Your task to perform on an android device: turn off notifications settings in the gmail app Image 0: 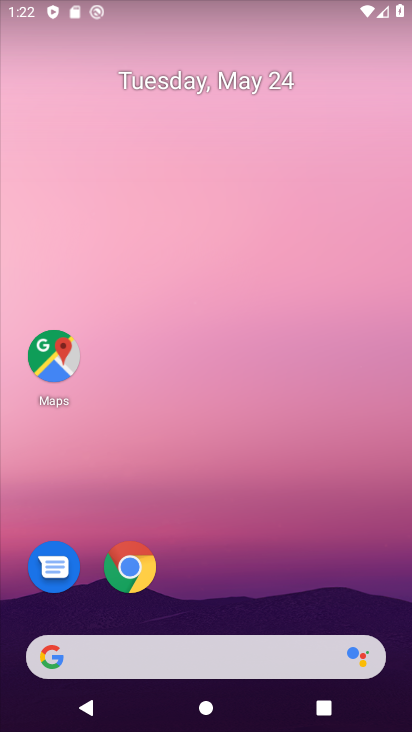
Step 0: drag from (210, 454) to (241, 186)
Your task to perform on an android device: turn off notifications settings in the gmail app Image 1: 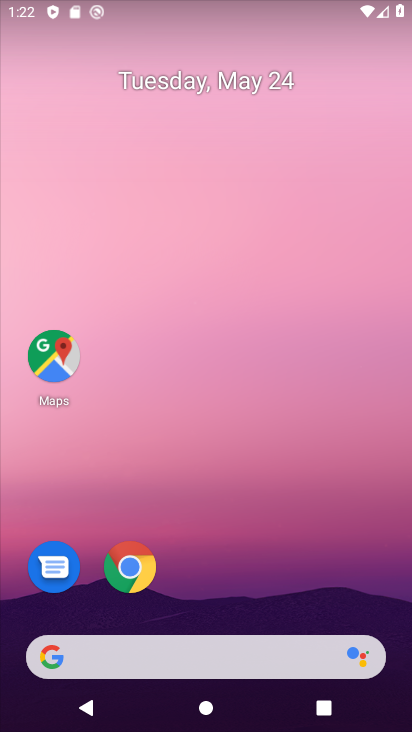
Step 1: drag from (240, 607) to (356, 8)
Your task to perform on an android device: turn off notifications settings in the gmail app Image 2: 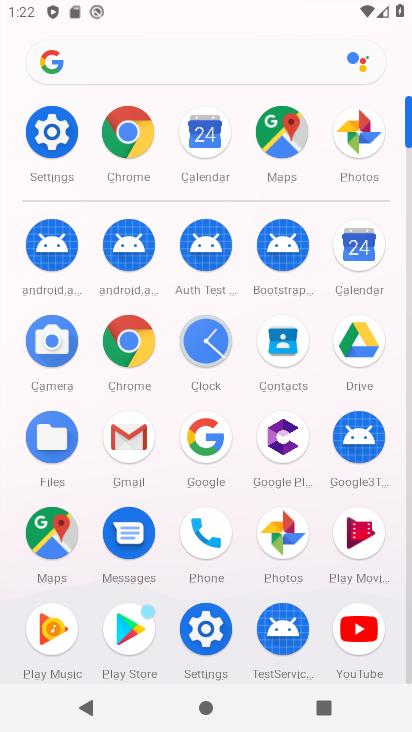
Step 2: click (140, 439)
Your task to perform on an android device: turn off notifications settings in the gmail app Image 3: 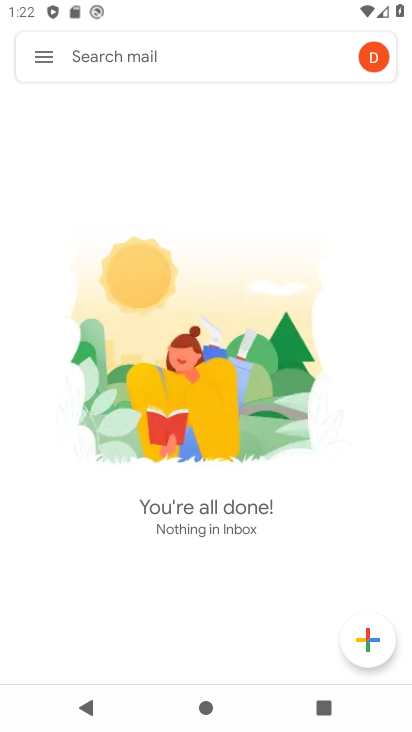
Step 3: click (45, 52)
Your task to perform on an android device: turn off notifications settings in the gmail app Image 4: 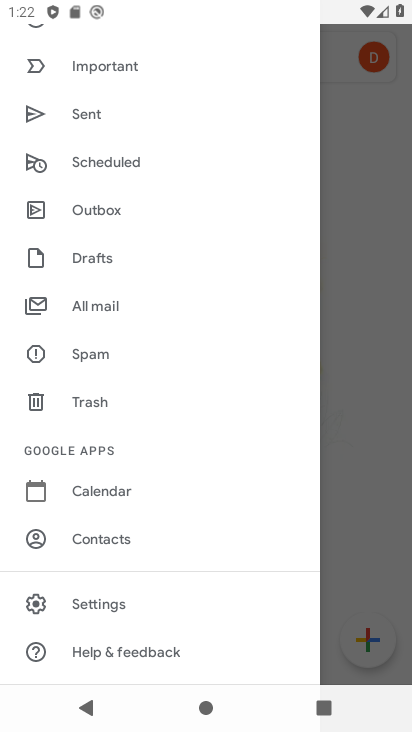
Step 4: click (100, 609)
Your task to perform on an android device: turn off notifications settings in the gmail app Image 5: 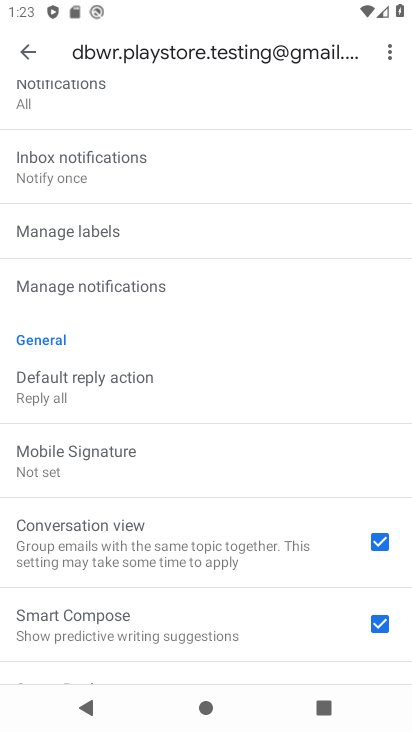
Step 5: click (30, 53)
Your task to perform on an android device: turn off notifications settings in the gmail app Image 6: 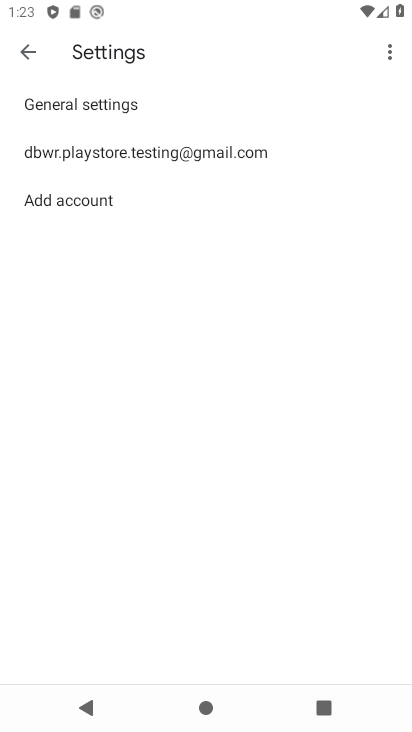
Step 6: click (112, 100)
Your task to perform on an android device: turn off notifications settings in the gmail app Image 7: 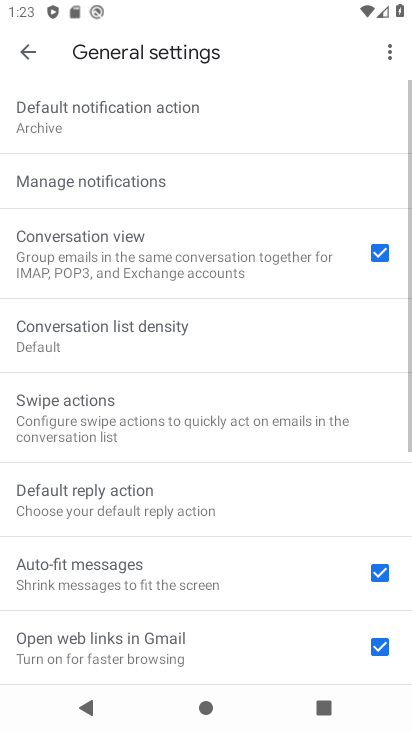
Step 7: click (115, 178)
Your task to perform on an android device: turn off notifications settings in the gmail app Image 8: 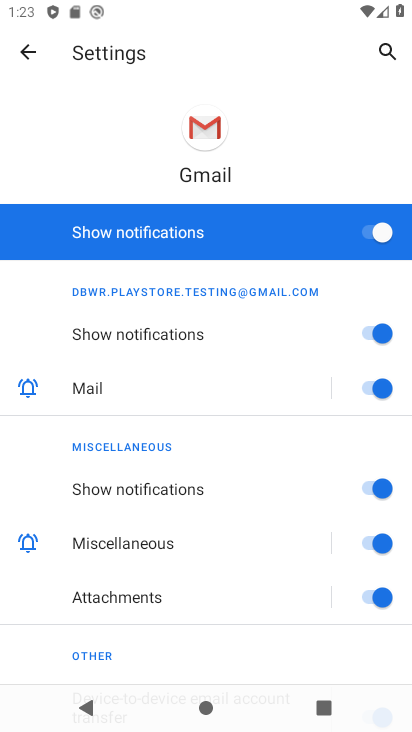
Step 8: click (353, 233)
Your task to perform on an android device: turn off notifications settings in the gmail app Image 9: 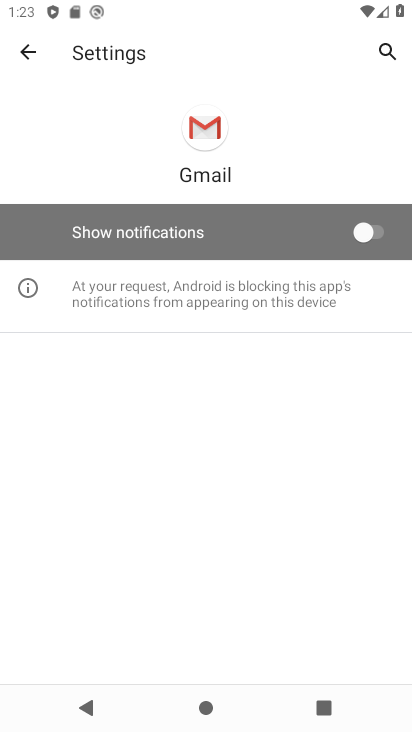
Step 9: task complete